Your task to perform on an android device: turn off location history Image 0: 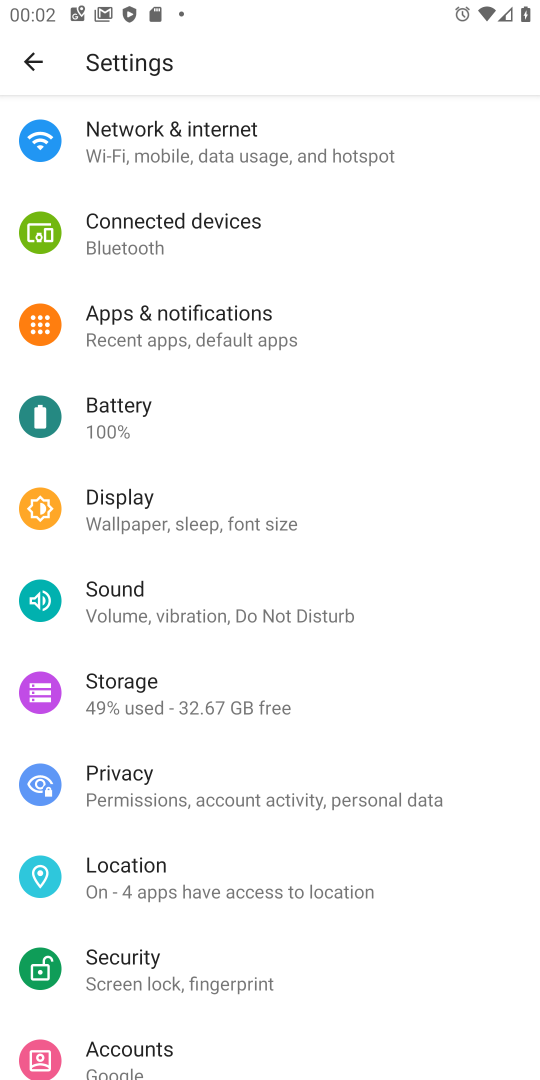
Step 0: click (107, 864)
Your task to perform on an android device: turn off location history Image 1: 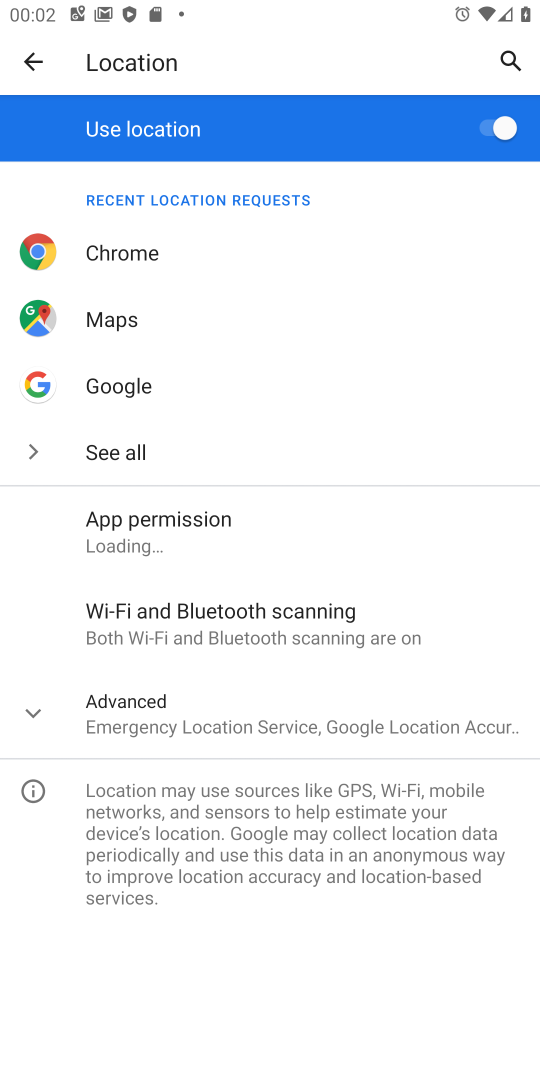
Step 1: click (197, 736)
Your task to perform on an android device: turn off location history Image 2: 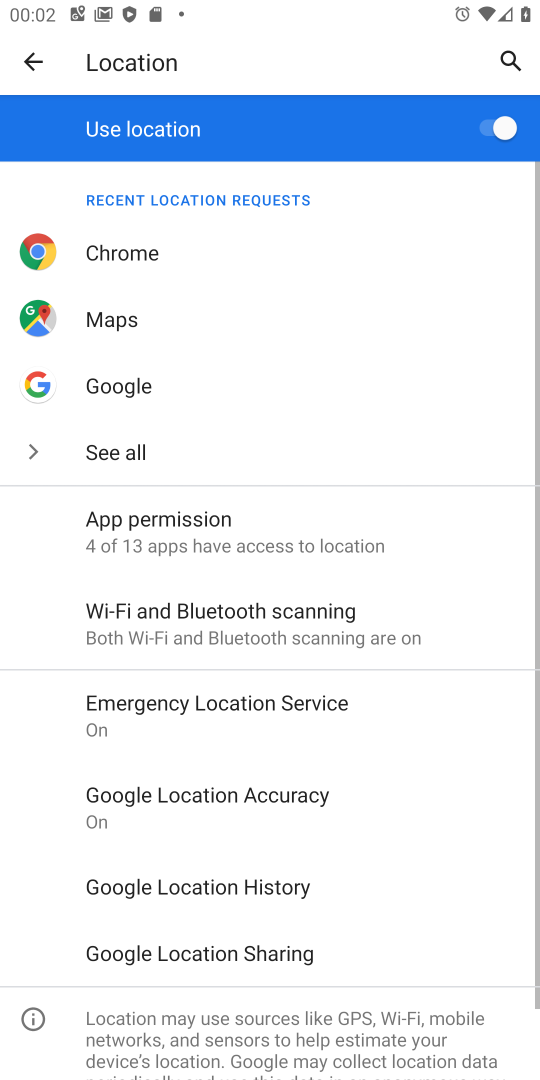
Step 2: click (231, 882)
Your task to perform on an android device: turn off location history Image 3: 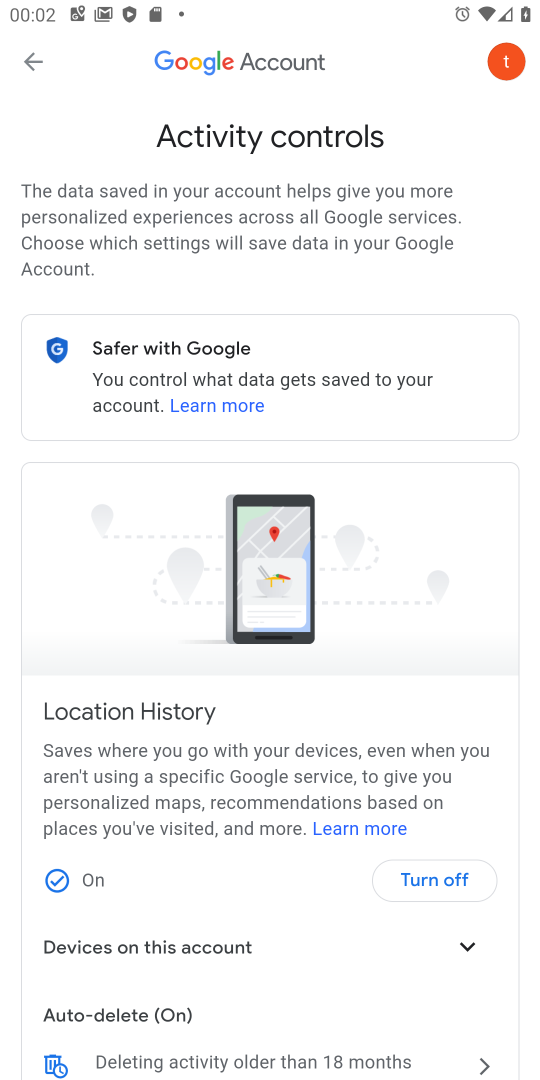
Step 3: click (457, 883)
Your task to perform on an android device: turn off location history Image 4: 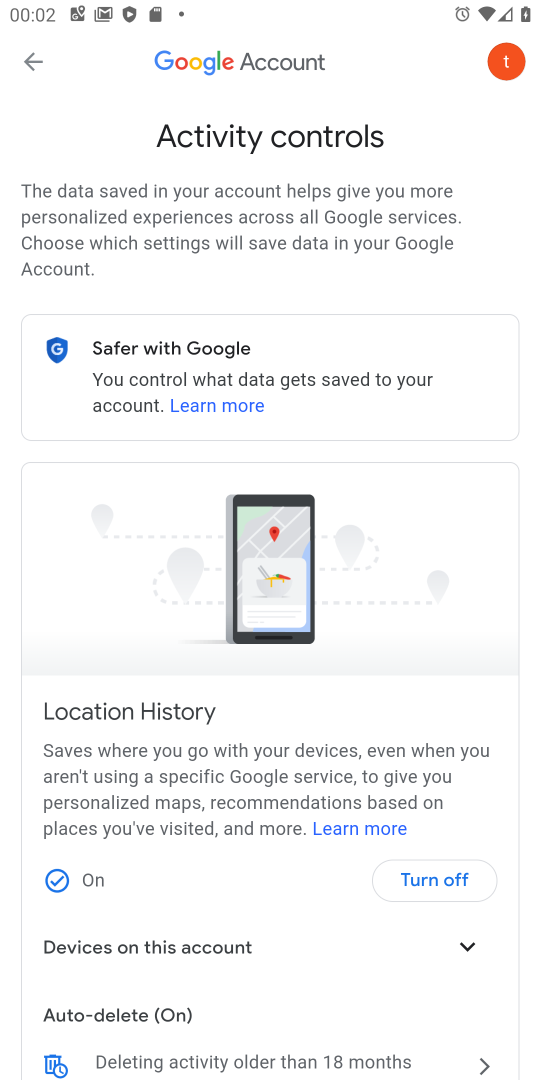
Step 4: click (435, 877)
Your task to perform on an android device: turn off location history Image 5: 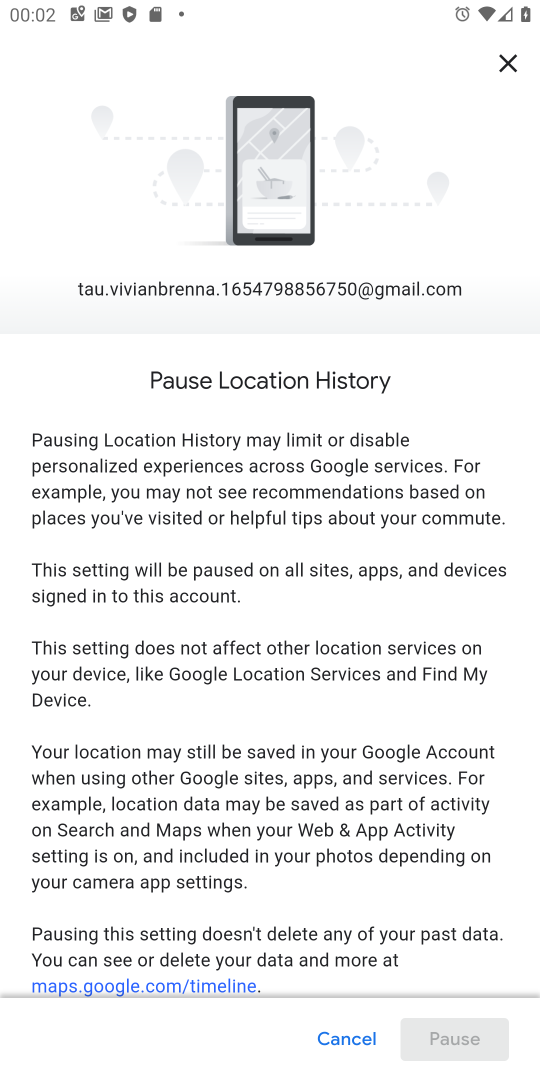
Step 5: drag from (418, 931) to (334, 296)
Your task to perform on an android device: turn off location history Image 6: 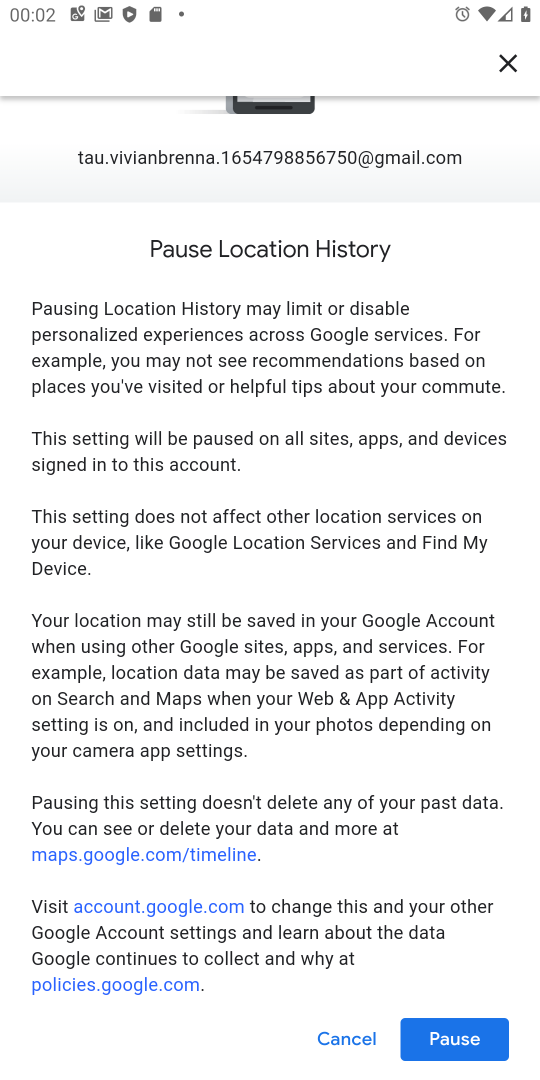
Step 6: drag from (414, 893) to (325, 316)
Your task to perform on an android device: turn off location history Image 7: 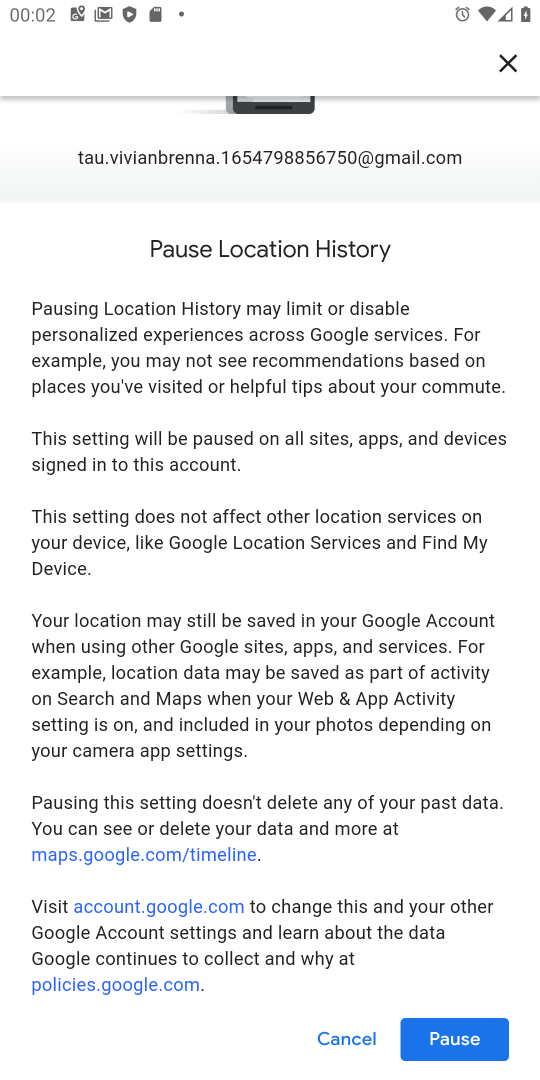
Step 7: click (465, 1022)
Your task to perform on an android device: turn off location history Image 8: 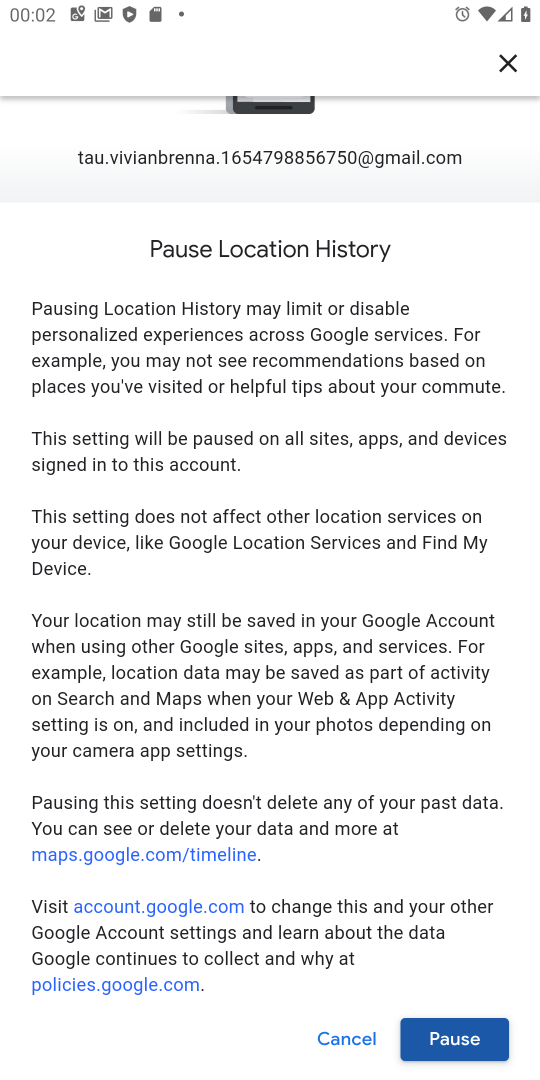
Step 8: click (476, 1033)
Your task to perform on an android device: turn off location history Image 9: 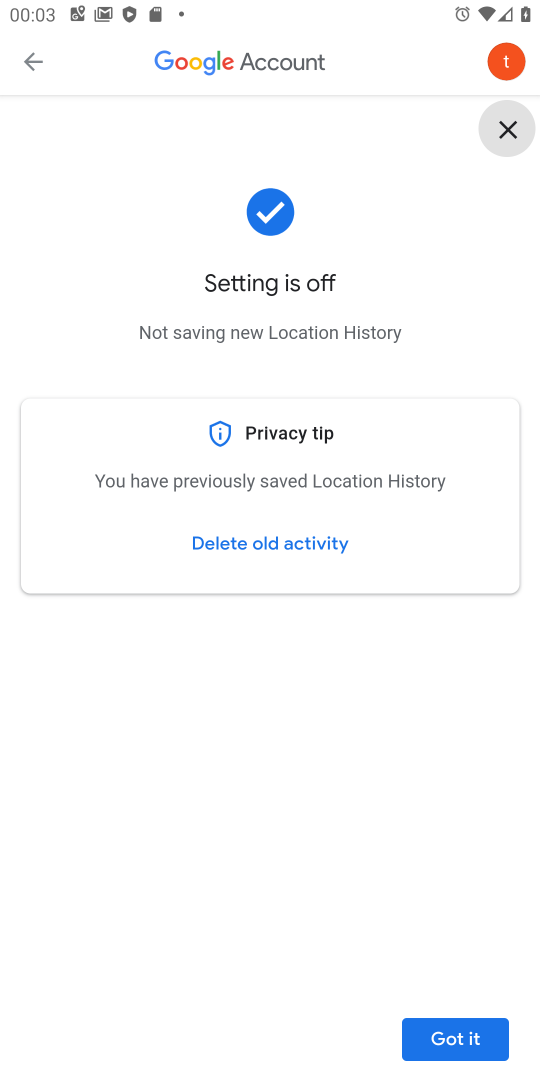
Step 9: task complete